Your task to perform on an android device: turn pop-ups off in chrome Image 0: 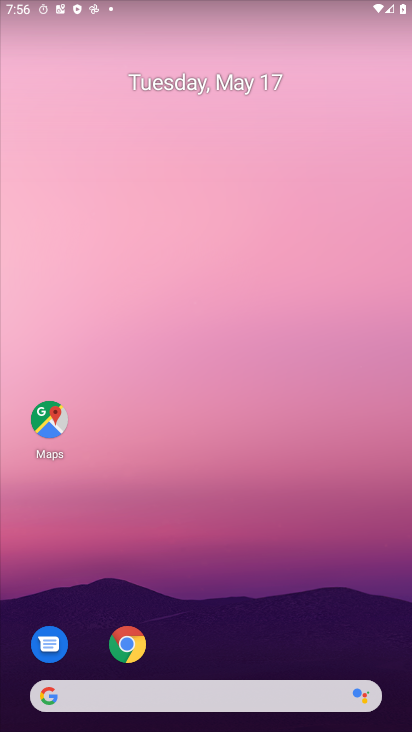
Step 0: drag from (309, 630) to (198, 24)
Your task to perform on an android device: turn pop-ups off in chrome Image 1: 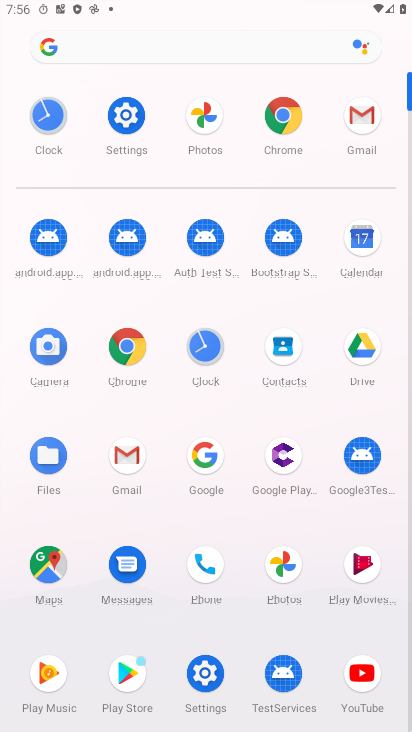
Step 1: click (128, 350)
Your task to perform on an android device: turn pop-ups off in chrome Image 2: 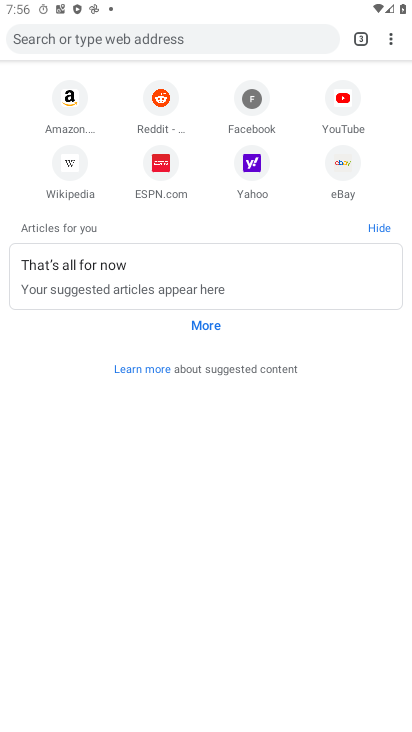
Step 2: click (392, 32)
Your task to perform on an android device: turn pop-ups off in chrome Image 3: 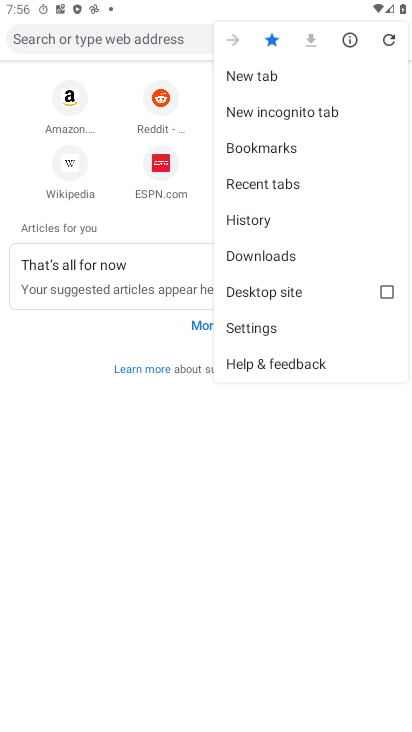
Step 3: click (266, 330)
Your task to perform on an android device: turn pop-ups off in chrome Image 4: 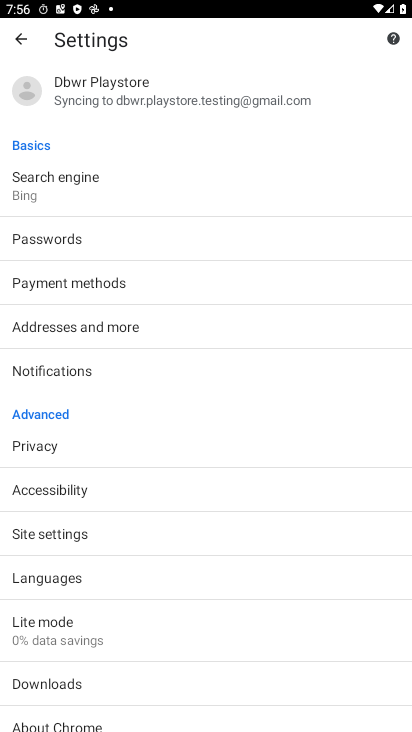
Step 4: click (64, 539)
Your task to perform on an android device: turn pop-ups off in chrome Image 5: 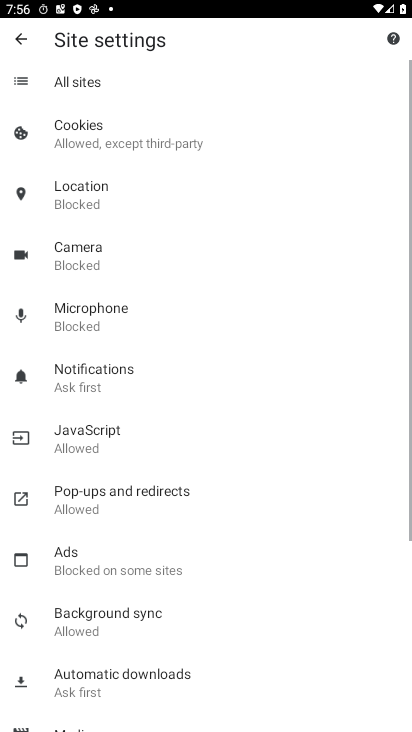
Step 5: click (65, 510)
Your task to perform on an android device: turn pop-ups off in chrome Image 6: 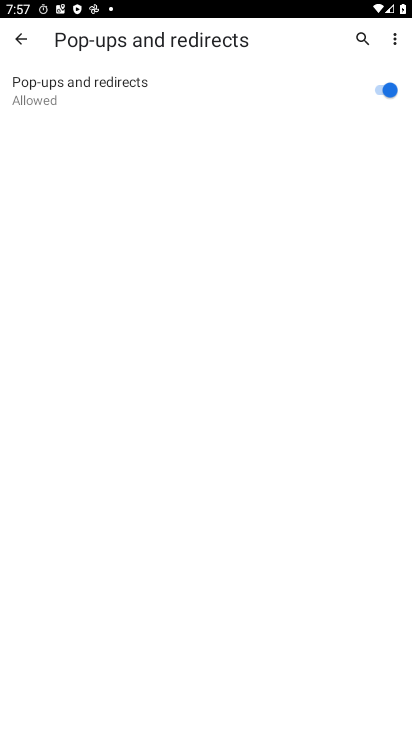
Step 6: click (345, 92)
Your task to perform on an android device: turn pop-ups off in chrome Image 7: 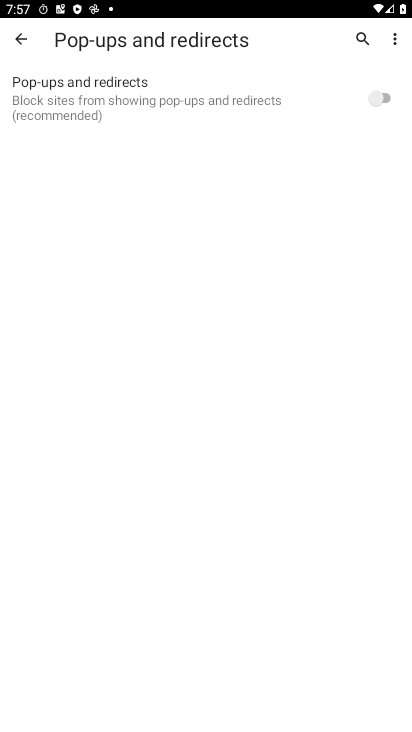
Step 7: task complete